Your task to perform on an android device: turn on showing notifications on the lock screen Image 0: 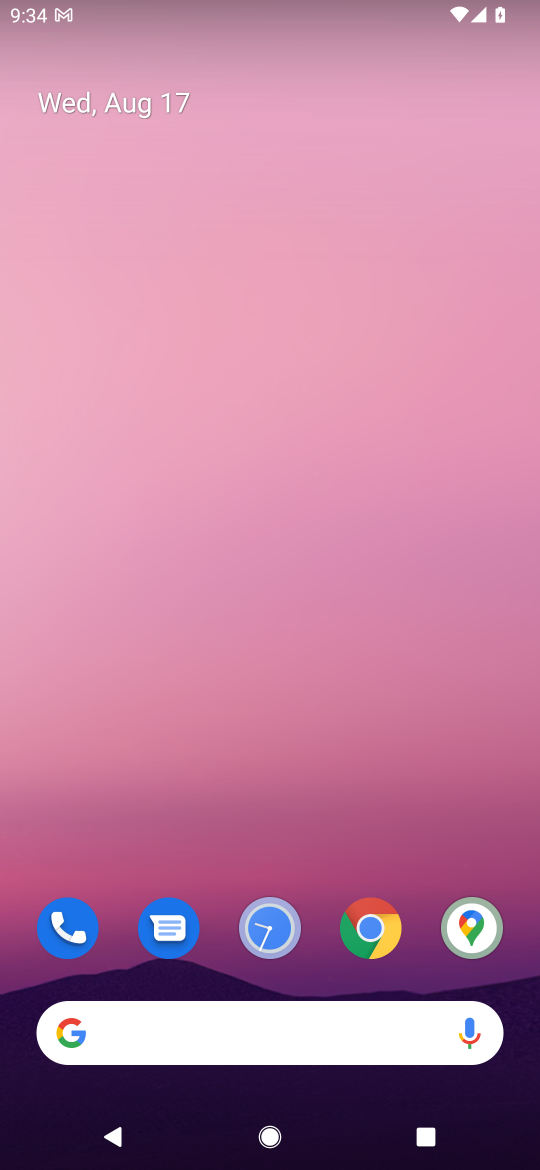
Step 0: drag from (391, 764) to (120, 17)
Your task to perform on an android device: turn on showing notifications on the lock screen Image 1: 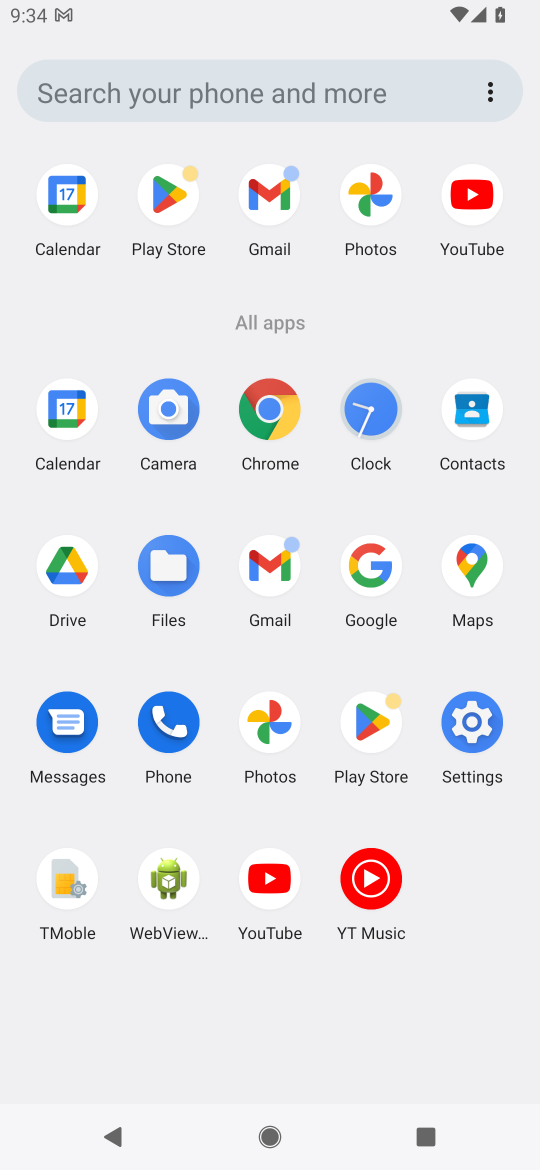
Step 1: click (469, 730)
Your task to perform on an android device: turn on showing notifications on the lock screen Image 2: 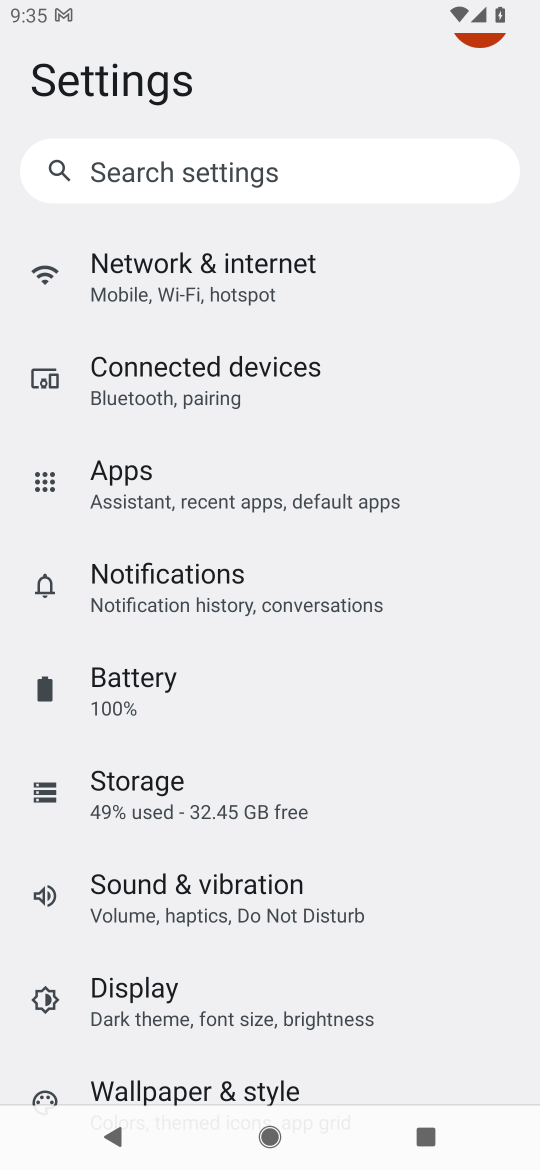
Step 2: click (241, 573)
Your task to perform on an android device: turn on showing notifications on the lock screen Image 3: 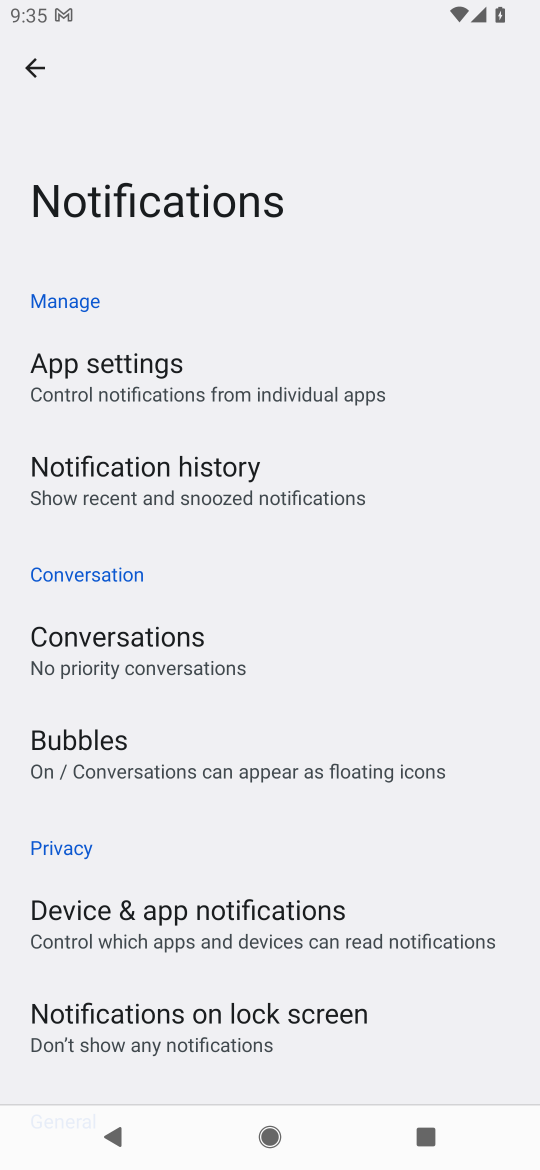
Step 3: click (159, 1017)
Your task to perform on an android device: turn on showing notifications on the lock screen Image 4: 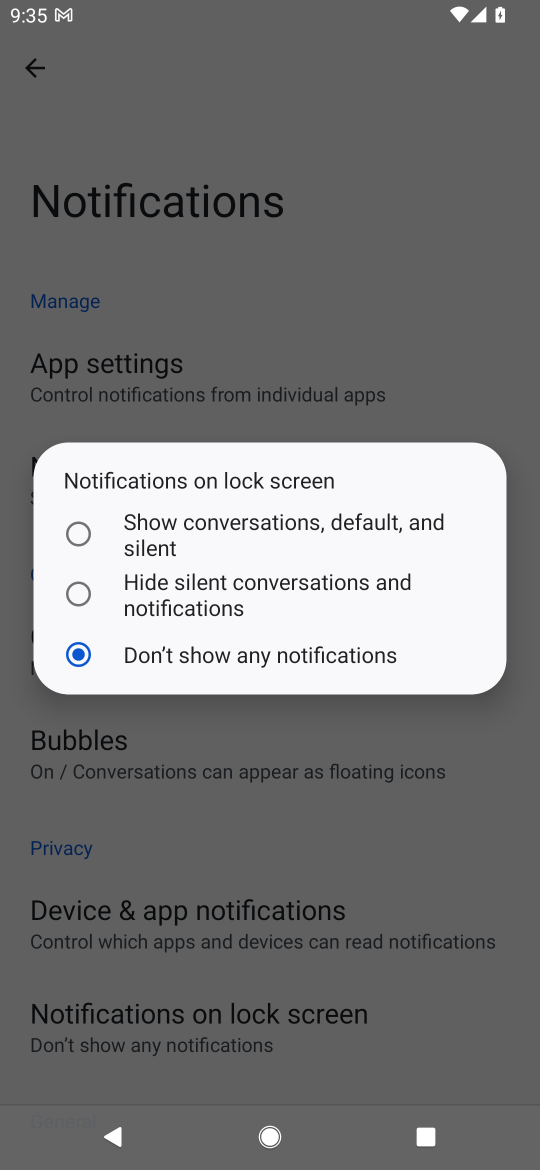
Step 4: click (229, 521)
Your task to perform on an android device: turn on showing notifications on the lock screen Image 5: 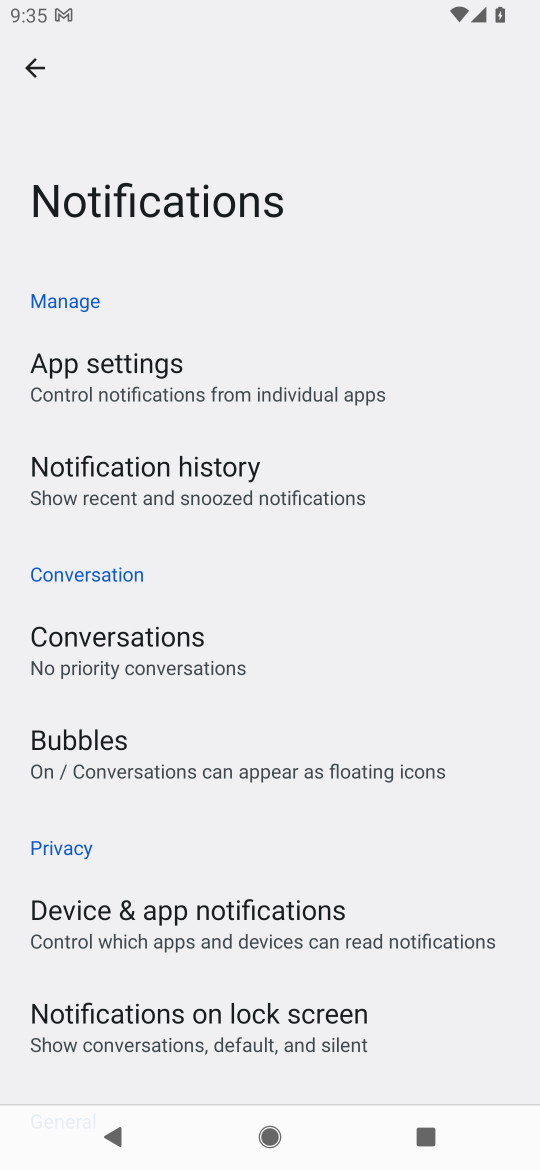
Step 5: task complete